Your task to perform on an android device: Show me recent news Image 0: 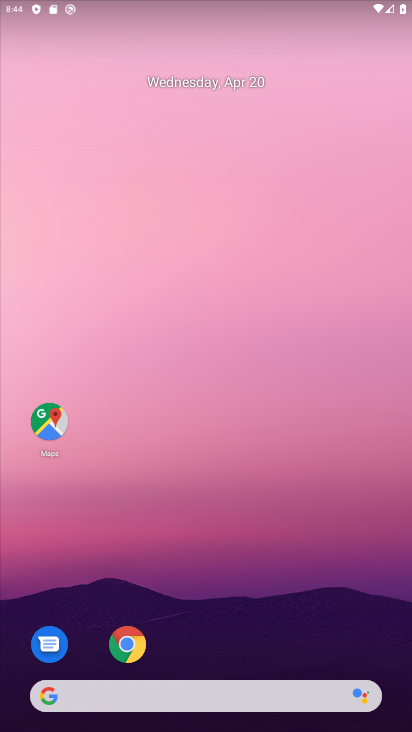
Step 0: drag from (158, 676) to (212, 211)
Your task to perform on an android device: Show me recent news Image 1: 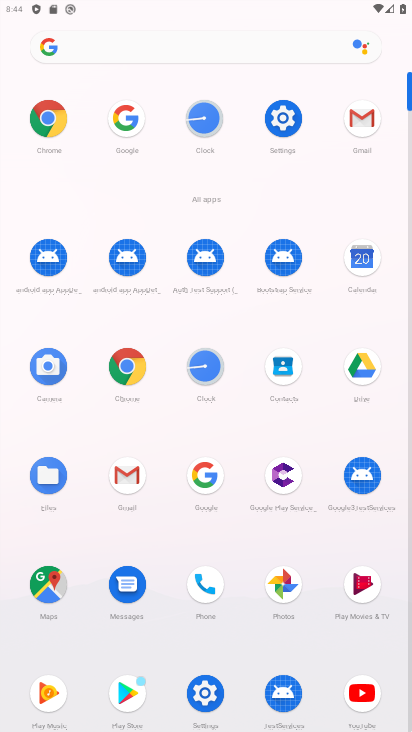
Step 1: click (210, 476)
Your task to perform on an android device: Show me recent news Image 2: 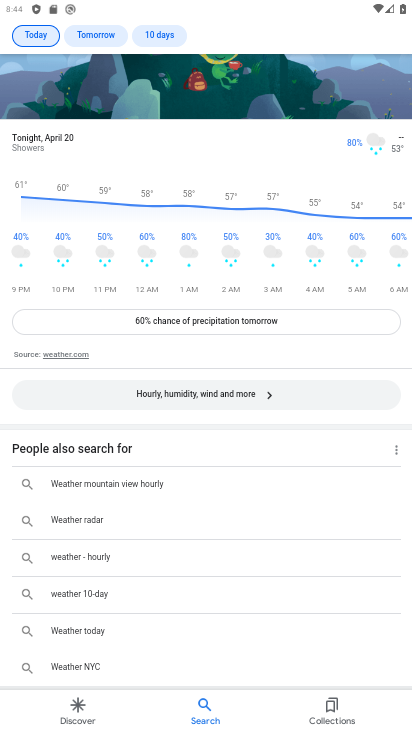
Step 2: press back button
Your task to perform on an android device: Show me recent news Image 3: 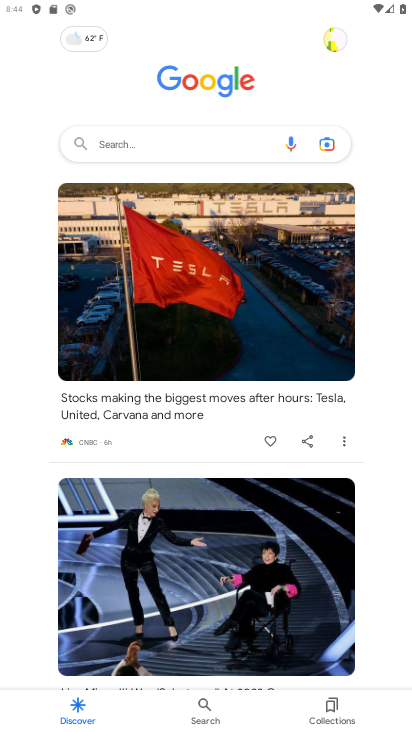
Step 3: click (163, 145)
Your task to perform on an android device: Show me recent news Image 4: 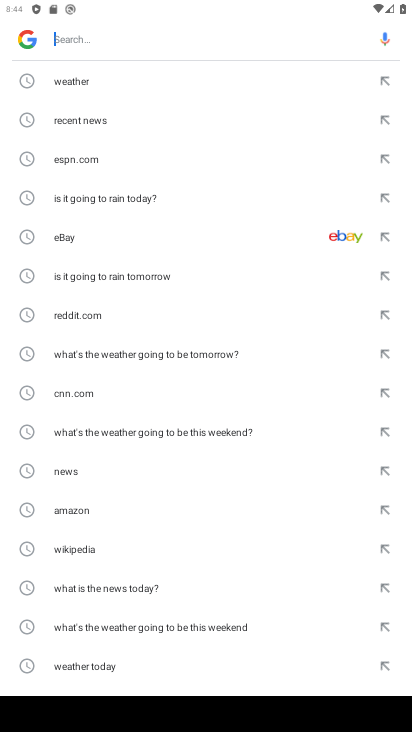
Step 4: click (100, 128)
Your task to perform on an android device: Show me recent news Image 5: 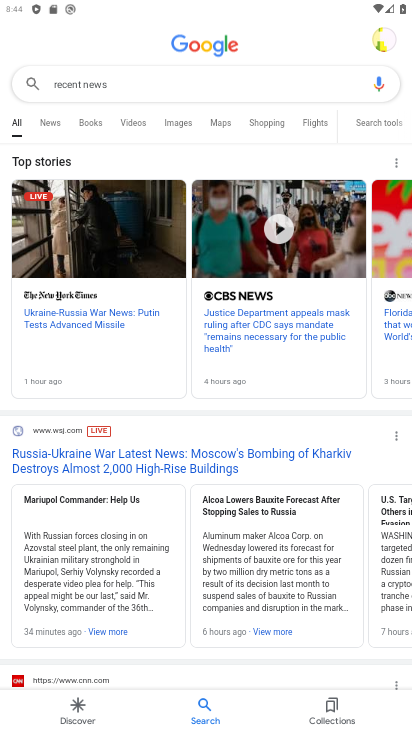
Step 5: task complete